Your task to perform on an android device: Do I have any events this weekend? Image 0: 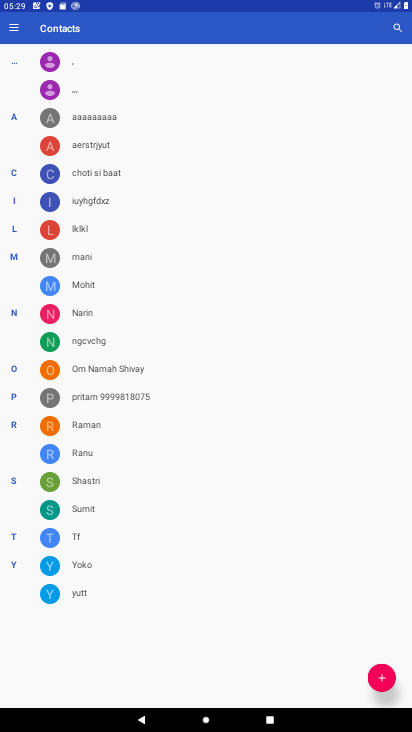
Step 0: press home button
Your task to perform on an android device: Do I have any events this weekend? Image 1: 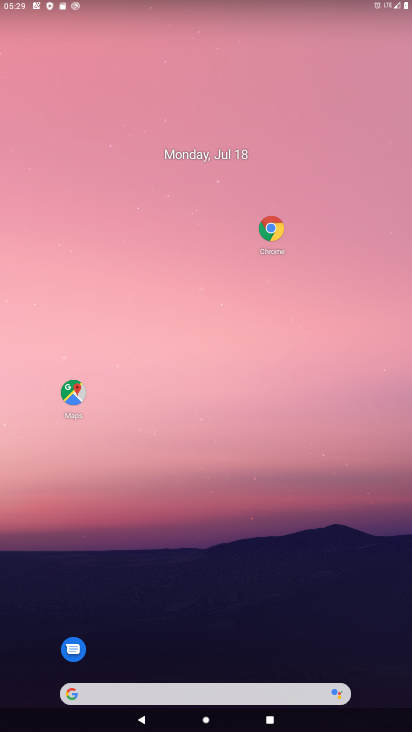
Step 1: click (216, 162)
Your task to perform on an android device: Do I have any events this weekend? Image 2: 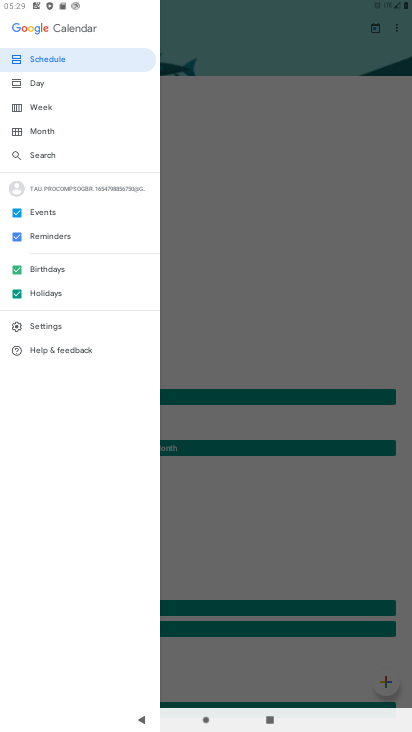
Step 2: click (50, 89)
Your task to perform on an android device: Do I have any events this weekend? Image 3: 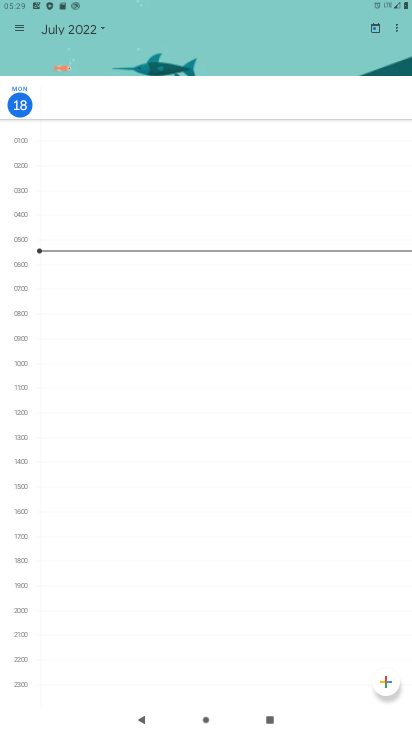
Step 3: click (20, 30)
Your task to perform on an android device: Do I have any events this weekend? Image 4: 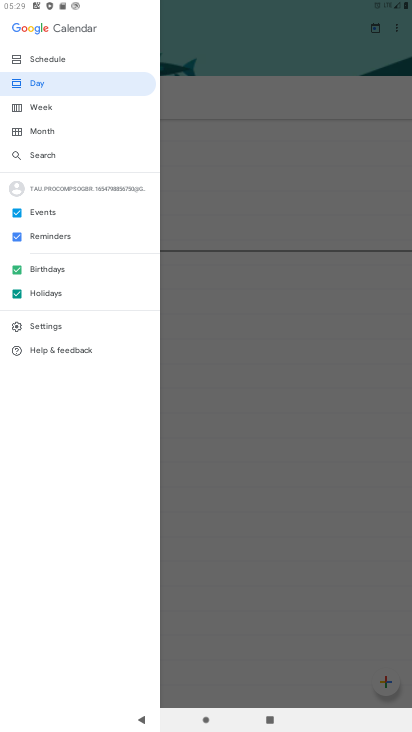
Step 4: click (19, 300)
Your task to perform on an android device: Do I have any events this weekend? Image 5: 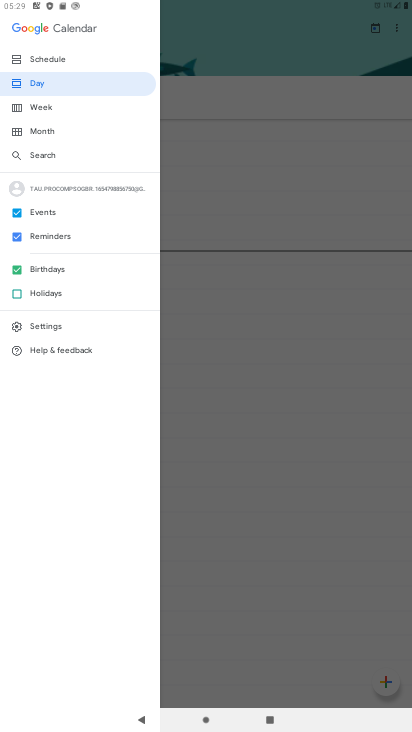
Step 5: click (18, 276)
Your task to perform on an android device: Do I have any events this weekend? Image 6: 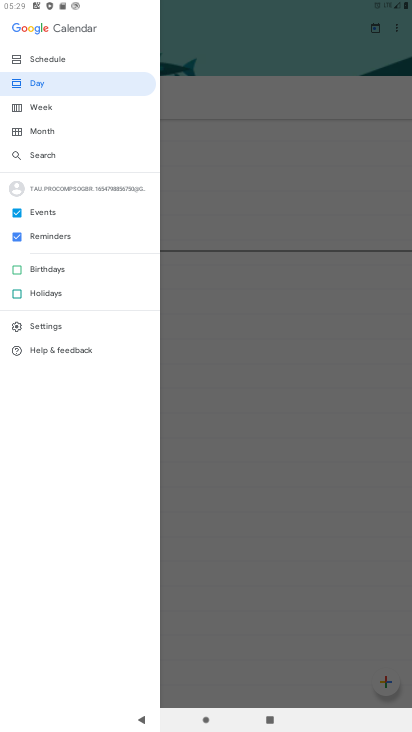
Step 6: click (19, 238)
Your task to perform on an android device: Do I have any events this weekend? Image 7: 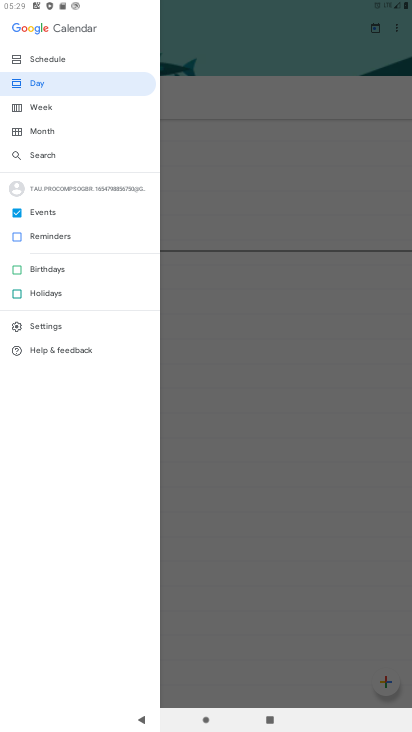
Step 7: click (18, 215)
Your task to perform on an android device: Do I have any events this weekend? Image 8: 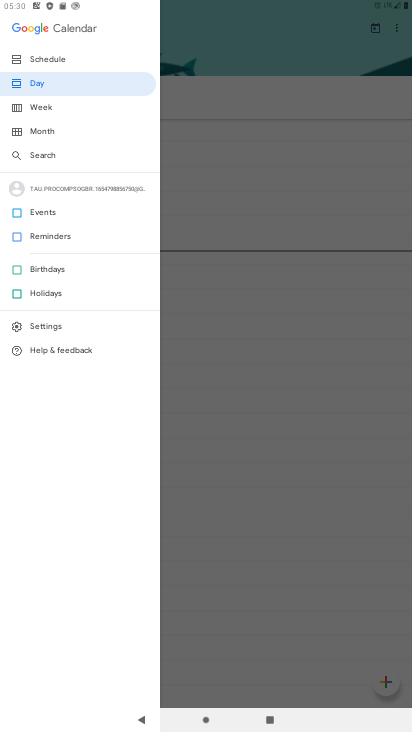
Step 8: click (255, 178)
Your task to perform on an android device: Do I have any events this weekend? Image 9: 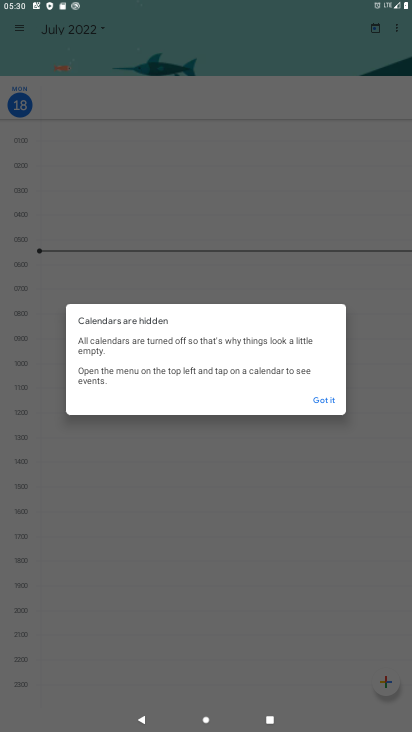
Step 9: click (316, 399)
Your task to perform on an android device: Do I have any events this weekend? Image 10: 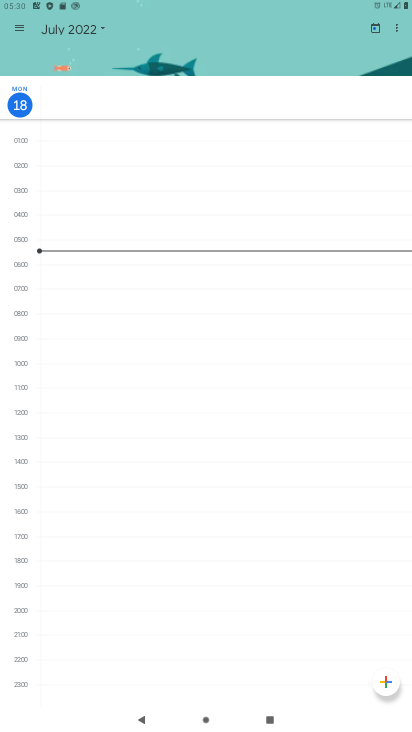
Step 10: click (78, 32)
Your task to perform on an android device: Do I have any events this weekend? Image 11: 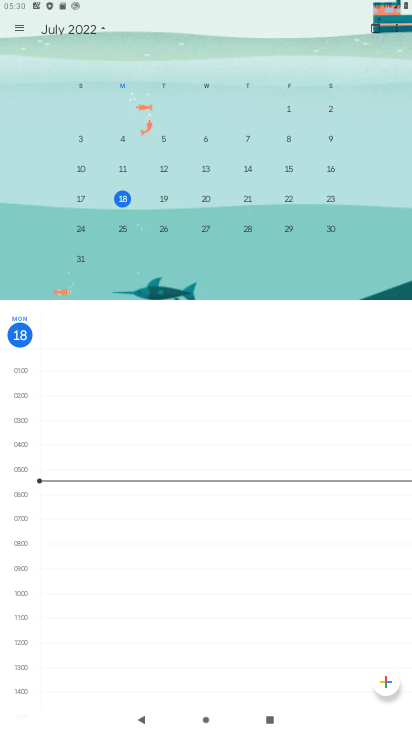
Step 11: click (329, 199)
Your task to perform on an android device: Do I have any events this weekend? Image 12: 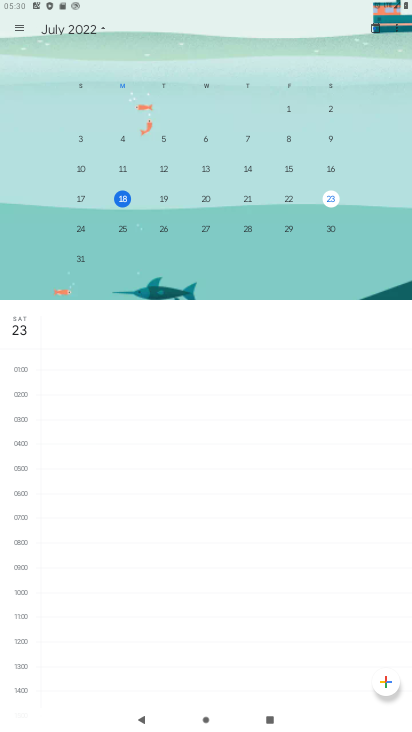
Step 12: task complete